Your task to perform on an android device: show emergency info Image 0: 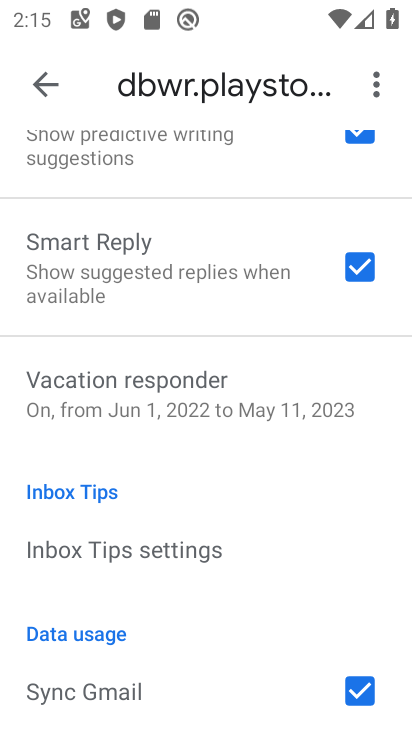
Step 0: press home button
Your task to perform on an android device: show emergency info Image 1: 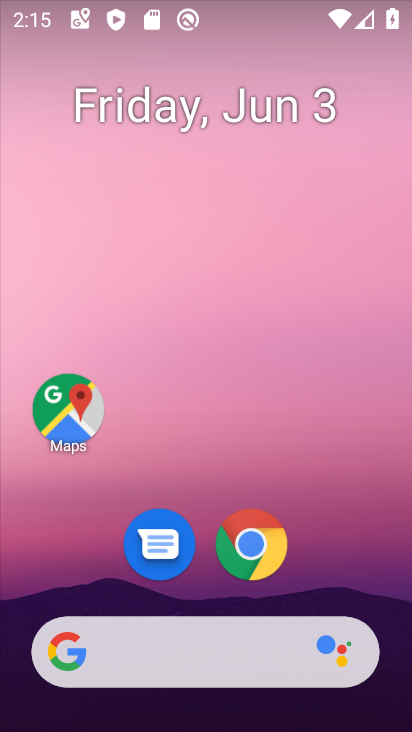
Step 1: drag from (366, 558) to (363, 145)
Your task to perform on an android device: show emergency info Image 2: 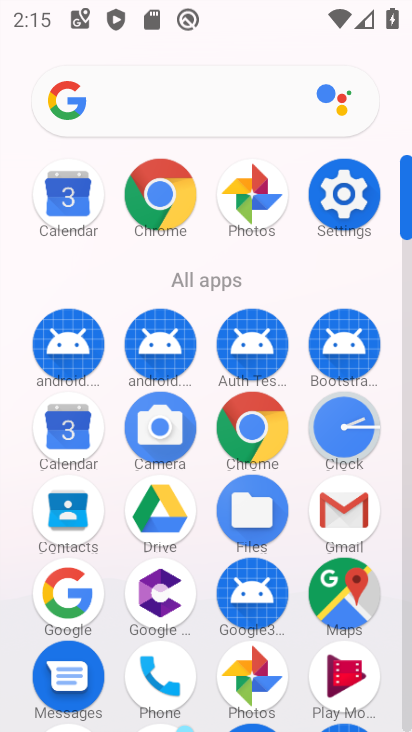
Step 2: click (341, 203)
Your task to perform on an android device: show emergency info Image 3: 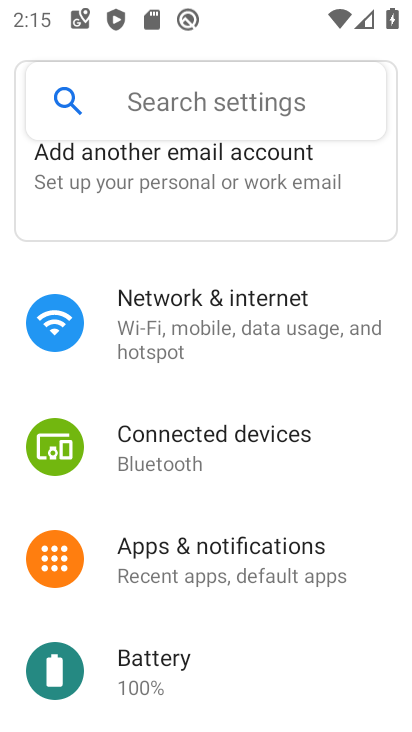
Step 3: drag from (287, 633) to (311, 218)
Your task to perform on an android device: show emergency info Image 4: 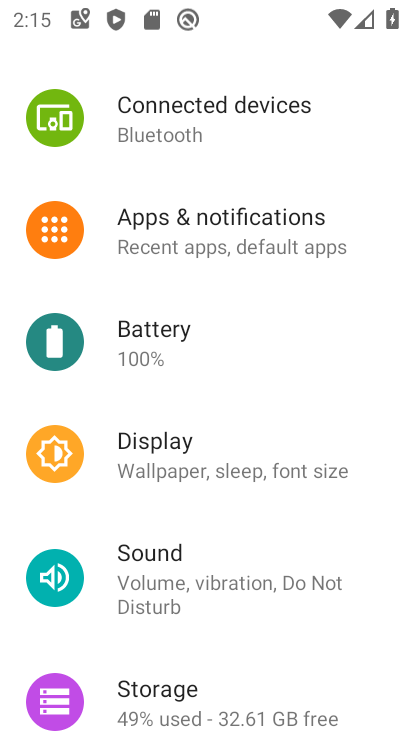
Step 4: drag from (339, 636) to (342, 263)
Your task to perform on an android device: show emergency info Image 5: 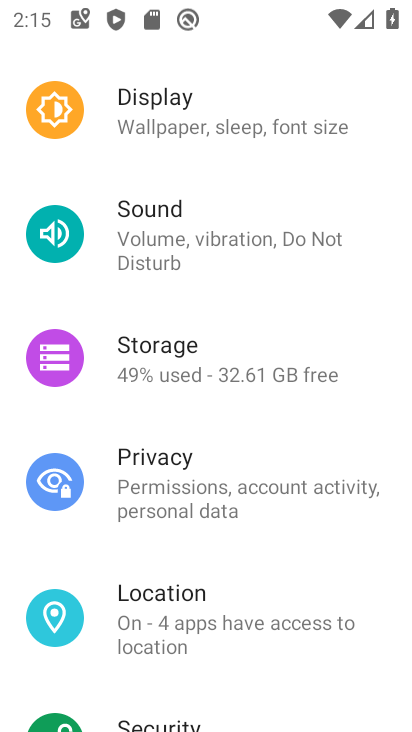
Step 5: drag from (271, 667) to (294, 238)
Your task to perform on an android device: show emergency info Image 6: 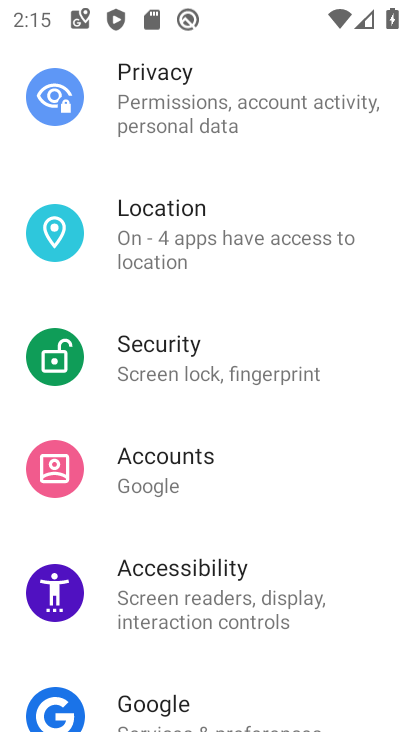
Step 6: drag from (313, 662) to (315, 270)
Your task to perform on an android device: show emergency info Image 7: 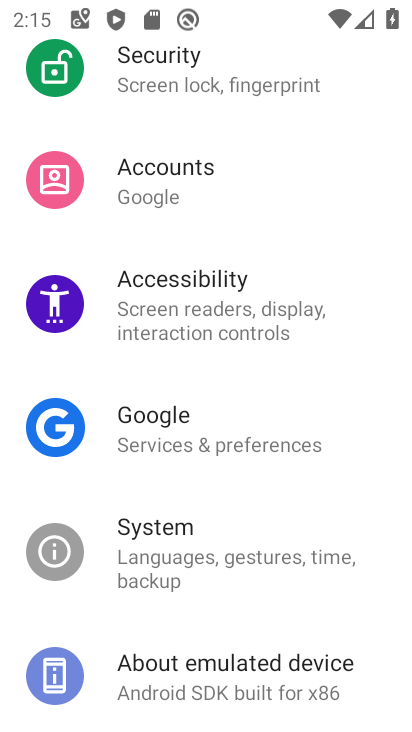
Step 7: drag from (313, 586) to (315, 299)
Your task to perform on an android device: show emergency info Image 8: 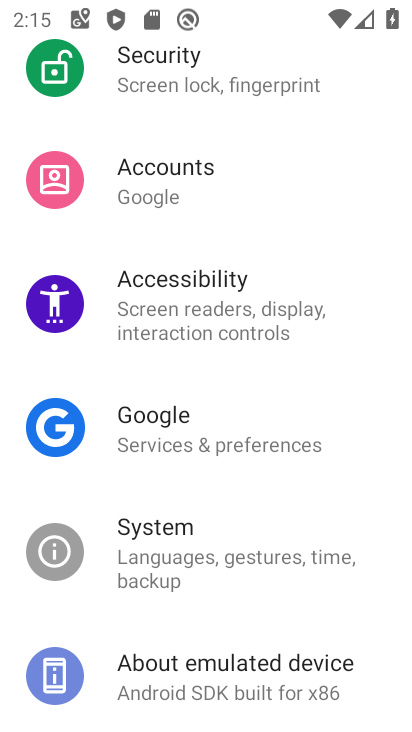
Step 8: click (254, 695)
Your task to perform on an android device: show emergency info Image 9: 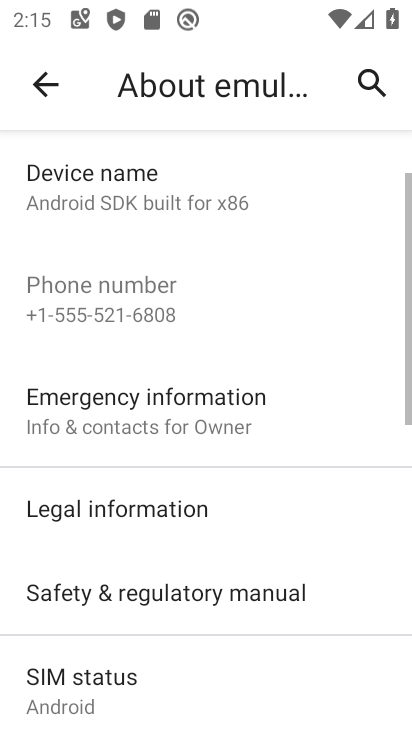
Step 9: drag from (256, 690) to (273, 412)
Your task to perform on an android device: show emergency info Image 10: 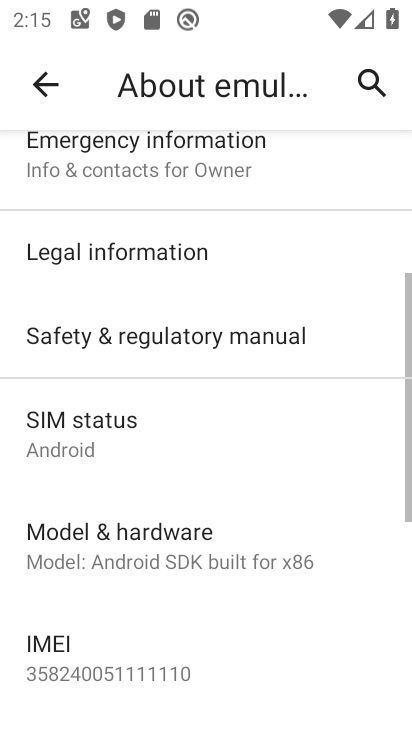
Step 10: click (202, 160)
Your task to perform on an android device: show emergency info Image 11: 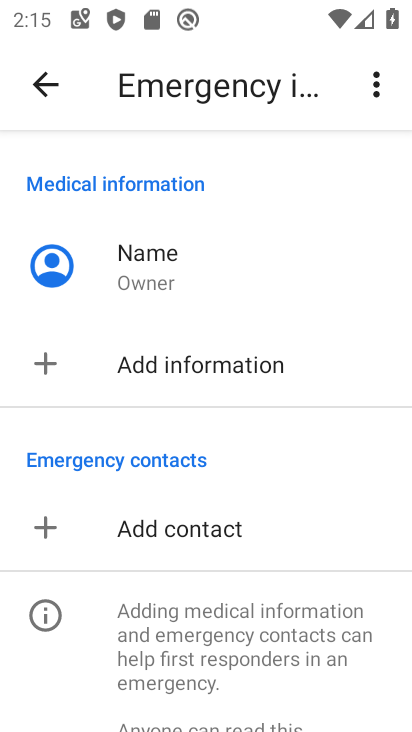
Step 11: task complete